Your task to perform on an android device: check android version Image 0: 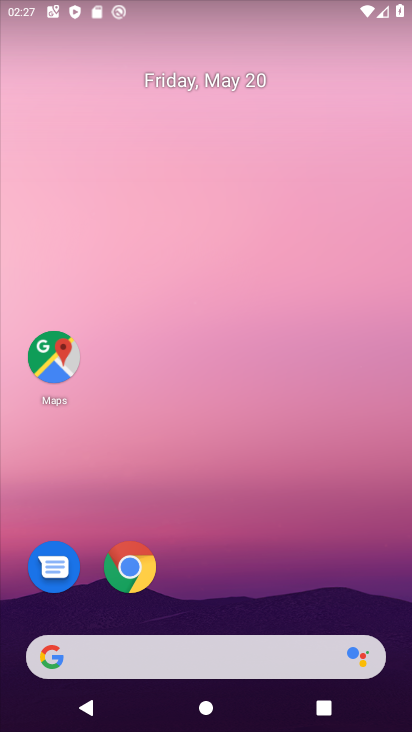
Step 0: drag from (222, 468) to (229, 74)
Your task to perform on an android device: check android version Image 1: 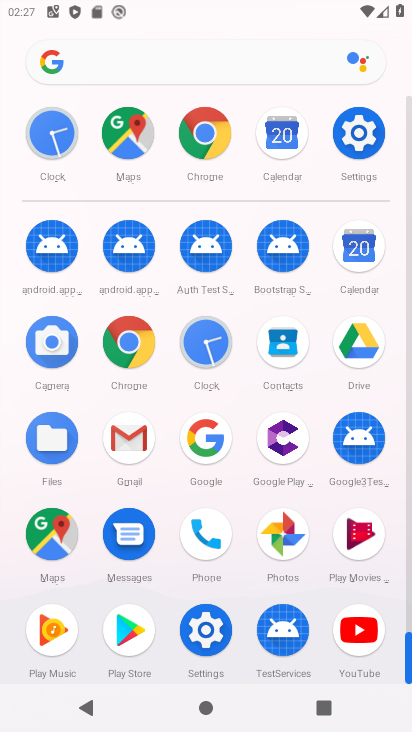
Step 1: drag from (13, 577) to (33, 214)
Your task to perform on an android device: check android version Image 2: 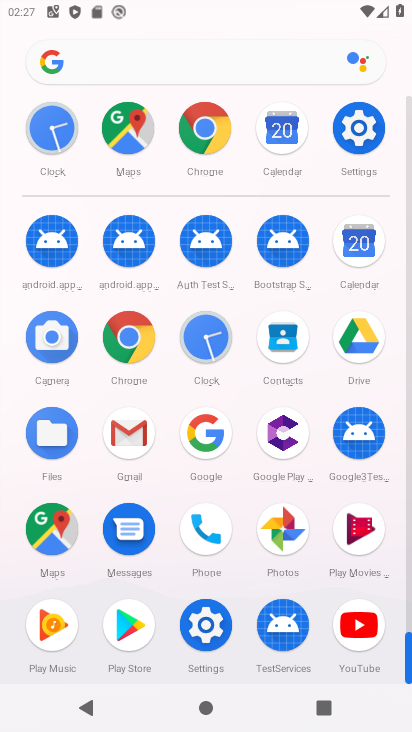
Step 2: click (210, 619)
Your task to perform on an android device: check android version Image 3: 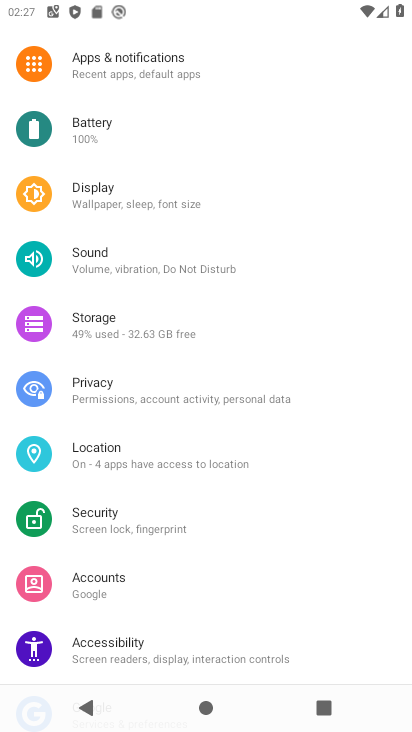
Step 3: drag from (223, 209) to (223, 579)
Your task to perform on an android device: check android version Image 4: 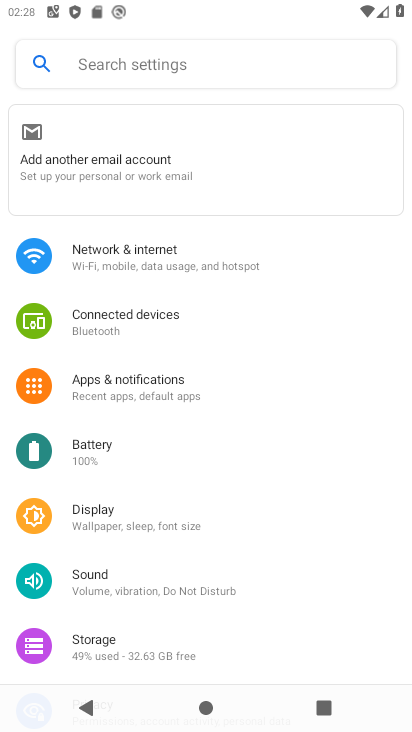
Step 4: drag from (225, 560) to (240, 113)
Your task to perform on an android device: check android version Image 5: 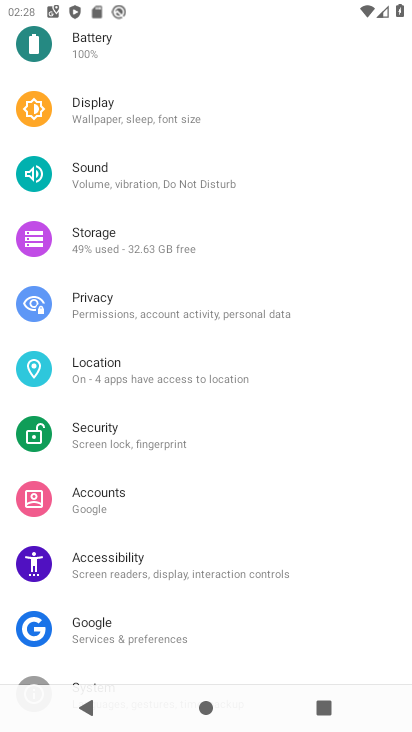
Step 5: drag from (150, 609) to (197, 201)
Your task to perform on an android device: check android version Image 6: 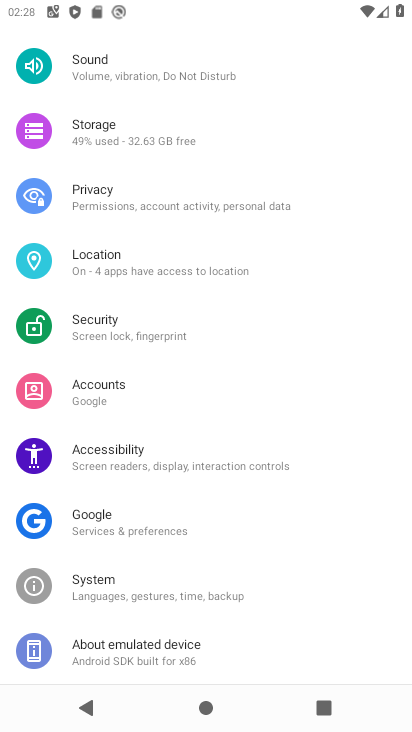
Step 6: click (123, 657)
Your task to perform on an android device: check android version Image 7: 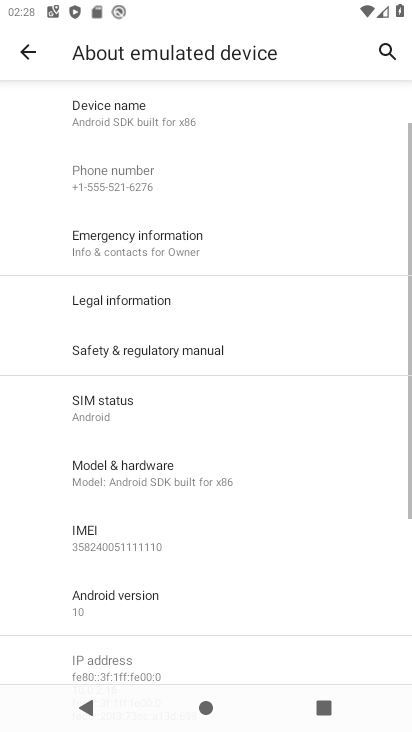
Step 7: task complete